Your task to perform on an android device: see sites visited before in the chrome app Image 0: 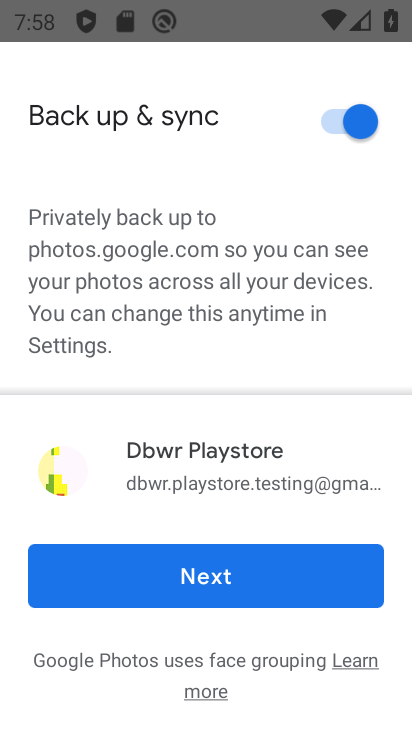
Step 0: press home button
Your task to perform on an android device: see sites visited before in the chrome app Image 1: 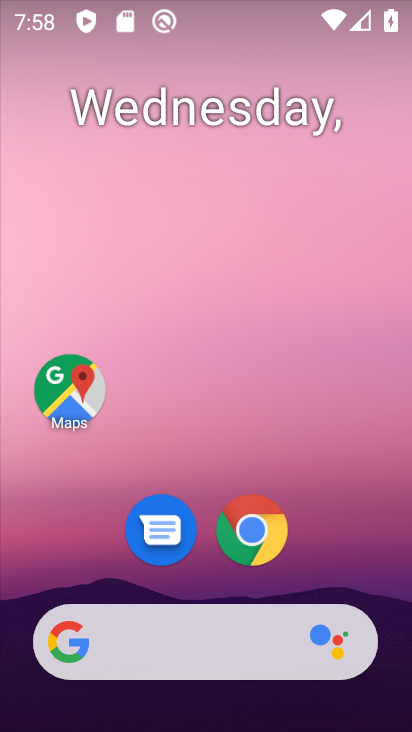
Step 1: click (251, 534)
Your task to perform on an android device: see sites visited before in the chrome app Image 2: 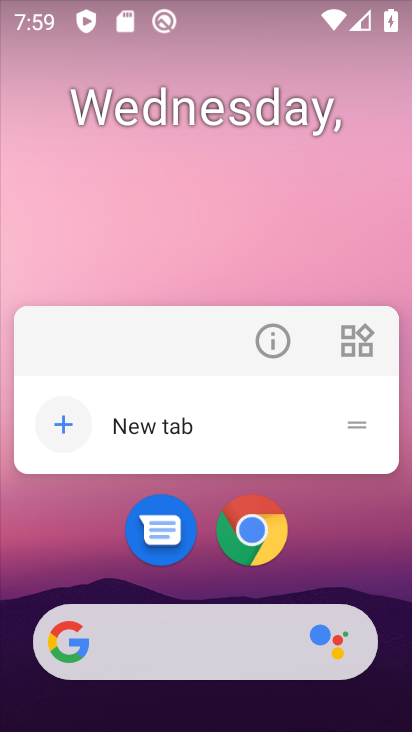
Step 2: click (251, 534)
Your task to perform on an android device: see sites visited before in the chrome app Image 3: 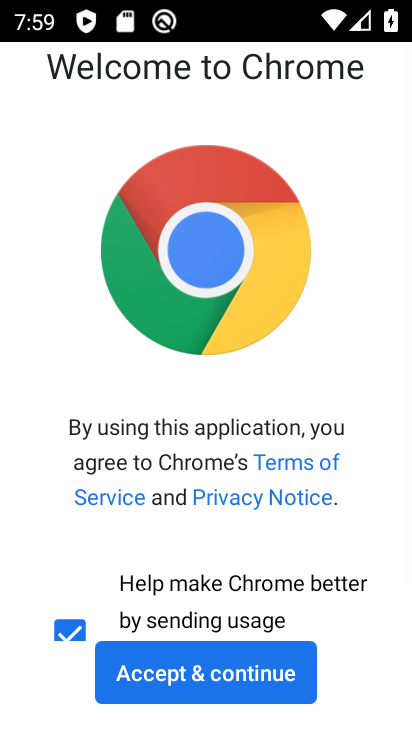
Step 3: click (194, 670)
Your task to perform on an android device: see sites visited before in the chrome app Image 4: 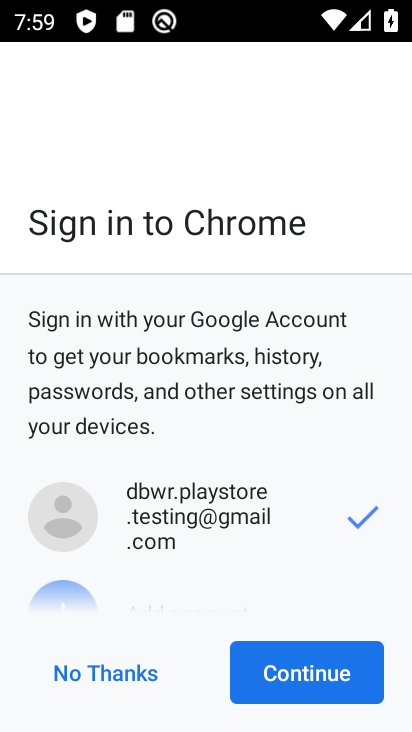
Step 4: click (117, 680)
Your task to perform on an android device: see sites visited before in the chrome app Image 5: 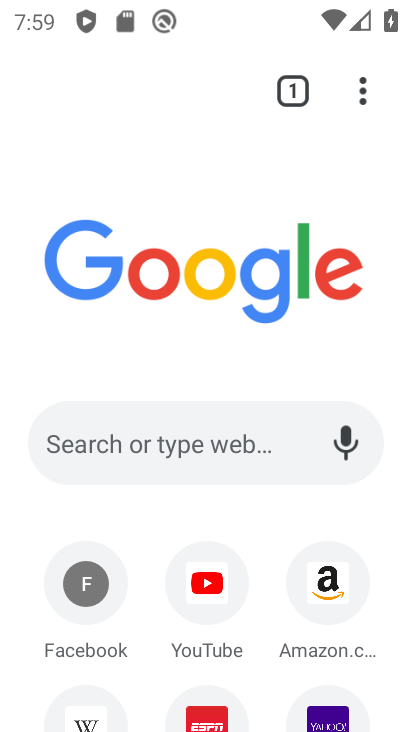
Step 5: click (361, 91)
Your task to perform on an android device: see sites visited before in the chrome app Image 6: 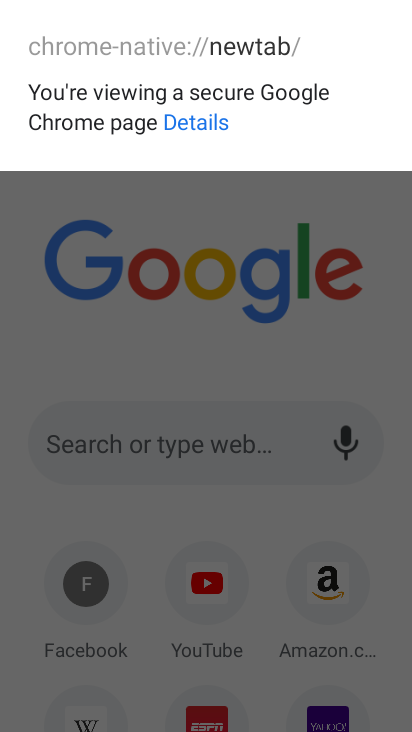
Step 6: click (353, 211)
Your task to perform on an android device: see sites visited before in the chrome app Image 7: 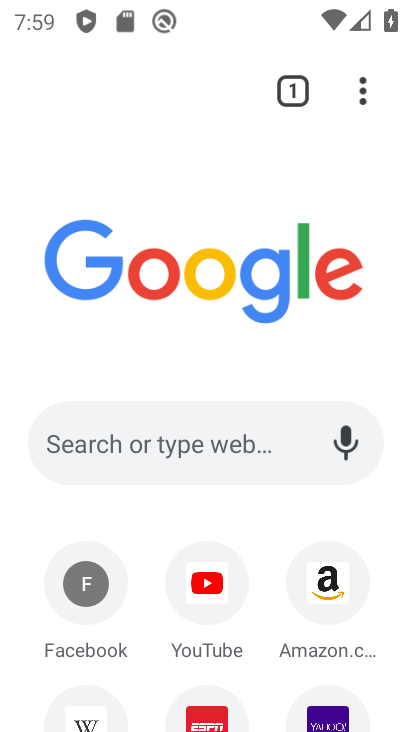
Step 7: task complete